Your task to perform on an android device: Open Android settings Image 0: 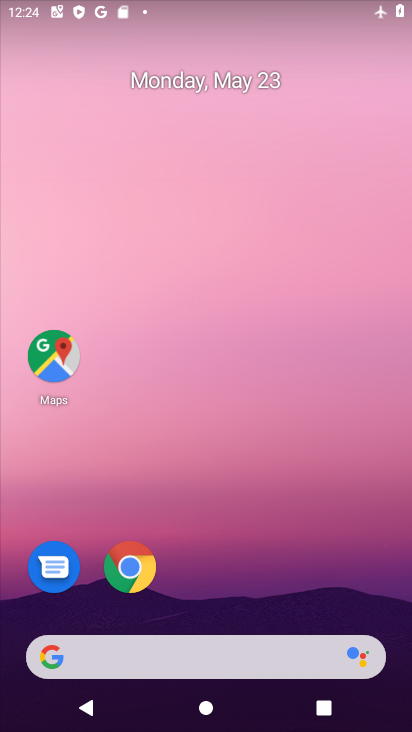
Step 0: drag from (221, 622) to (256, 19)
Your task to perform on an android device: Open Android settings Image 1: 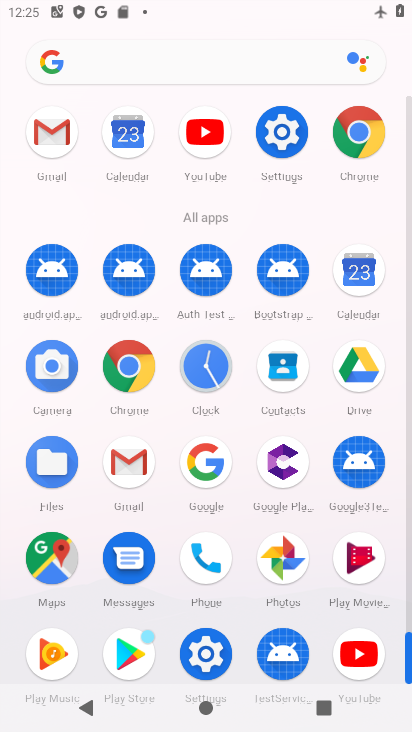
Step 1: click (287, 143)
Your task to perform on an android device: Open Android settings Image 2: 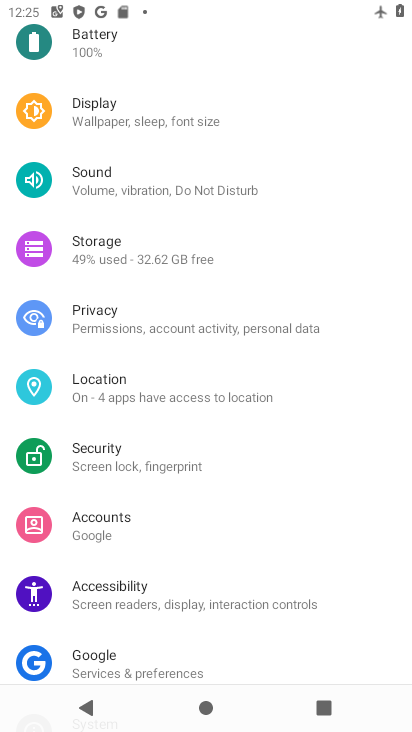
Step 2: task complete